Your task to perform on an android device: Open Android settings Image 0: 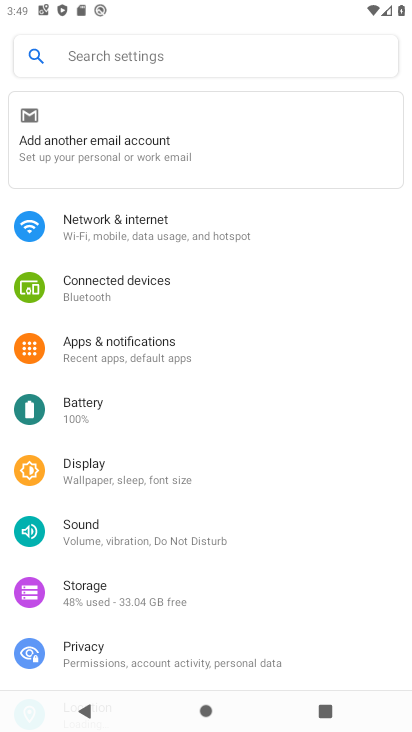
Step 0: drag from (281, 584) to (274, 104)
Your task to perform on an android device: Open Android settings Image 1: 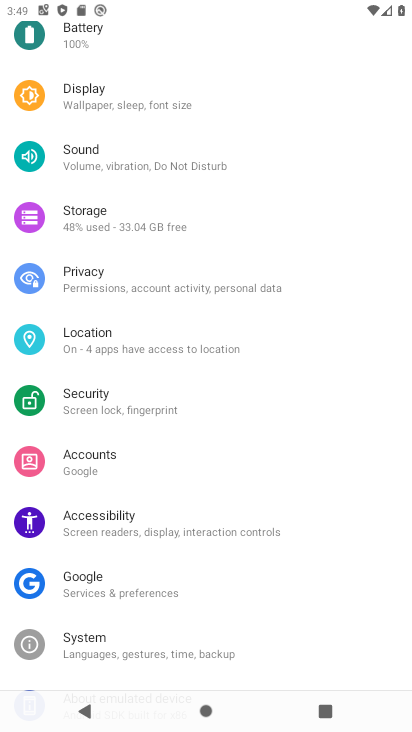
Step 1: drag from (223, 509) to (202, 97)
Your task to perform on an android device: Open Android settings Image 2: 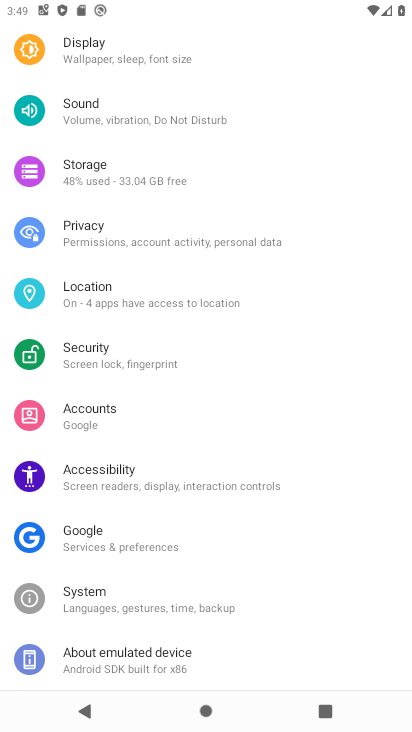
Step 2: drag from (175, 300) to (172, 615)
Your task to perform on an android device: Open Android settings Image 3: 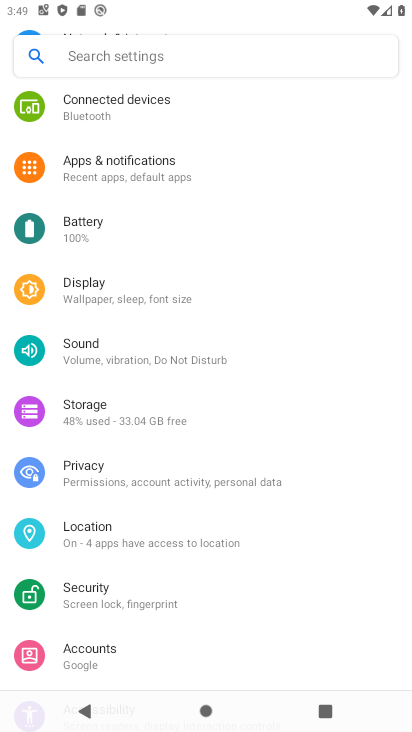
Step 3: drag from (213, 161) to (165, 562)
Your task to perform on an android device: Open Android settings Image 4: 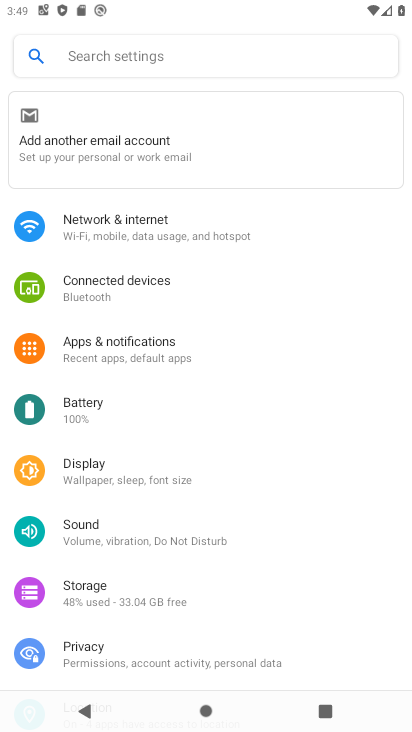
Step 4: drag from (170, 546) to (149, 105)
Your task to perform on an android device: Open Android settings Image 5: 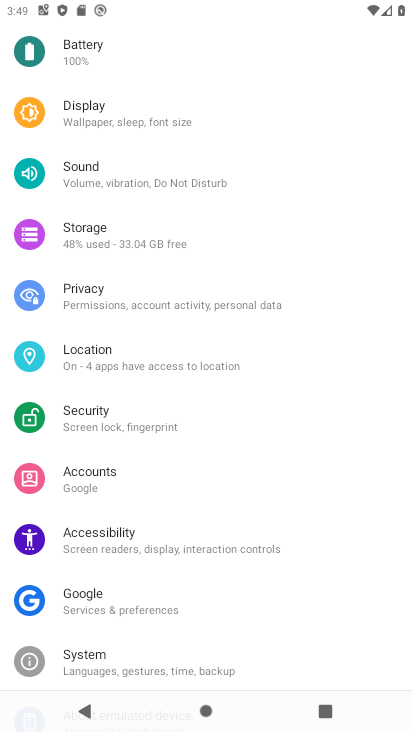
Step 5: drag from (97, 652) to (78, 340)
Your task to perform on an android device: Open Android settings Image 6: 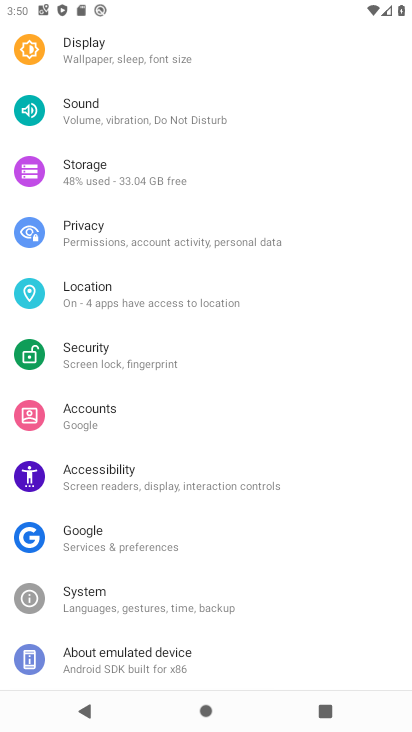
Step 6: click (99, 641)
Your task to perform on an android device: Open Android settings Image 7: 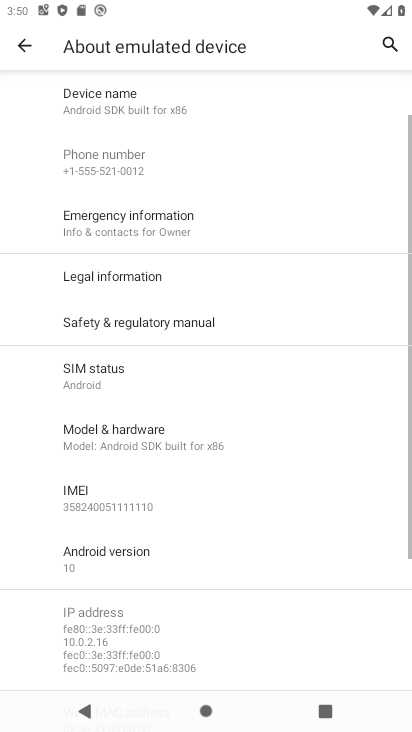
Step 7: task complete